Your task to perform on an android device: Go to battery settings Image 0: 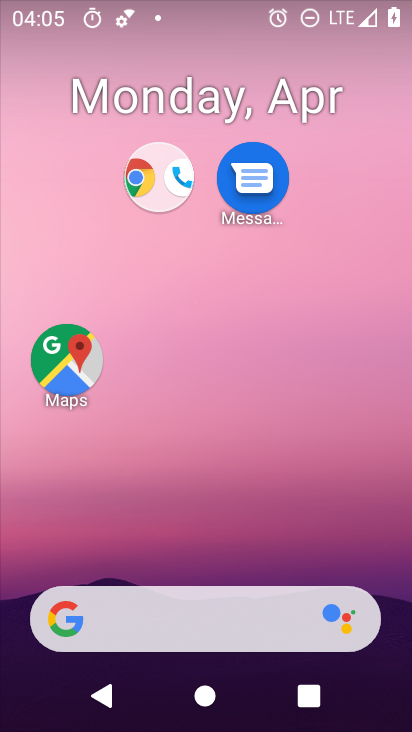
Step 0: drag from (256, 565) to (360, 0)
Your task to perform on an android device: Go to battery settings Image 1: 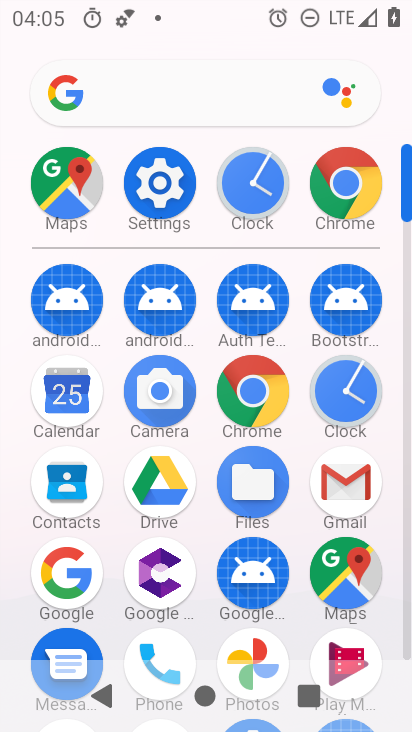
Step 1: drag from (295, 503) to (308, 98)
Your task to perform on an android device: Go to battery settings Image 2: 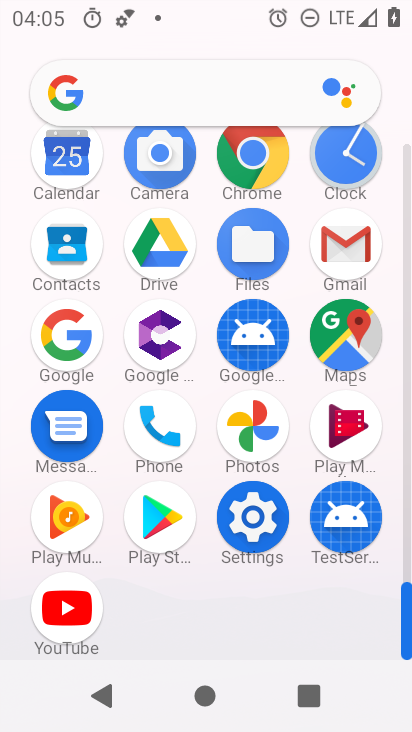
Step 2: click (254, 539)
Your task to perform on an android device: Go to battery settings Image 3: 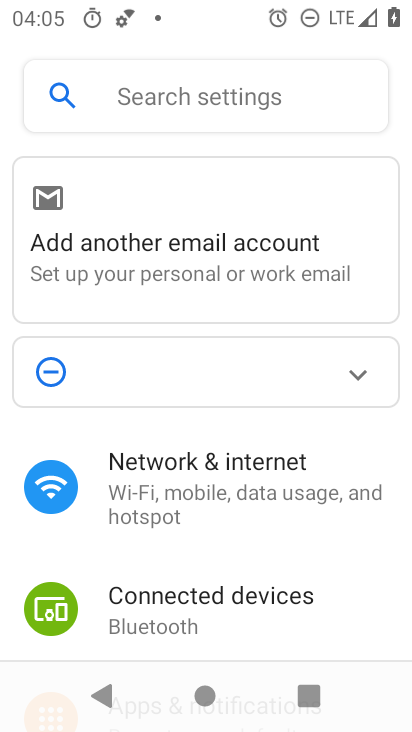
Step 3: drag from (277, 628) to (296, 65)
Your task to perform on an android device: Go to battery settings Image 4: 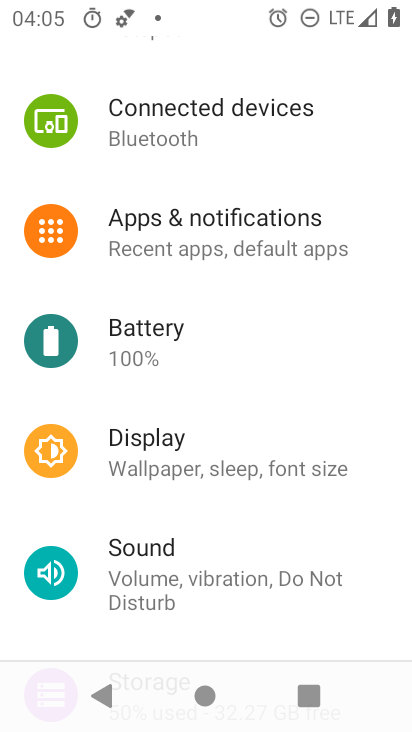
Step 4: click (192, 325)
Your task to perform on an android device: Go to battery settings Image 5: 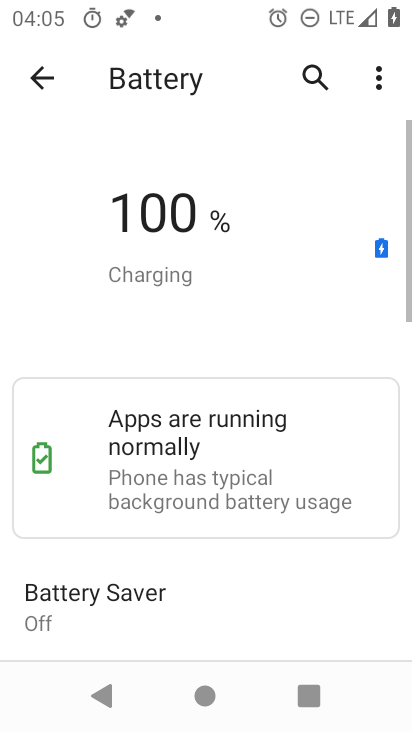
Step 5: task complete